Your task to perform on an android device: Go to eBay Image 0: 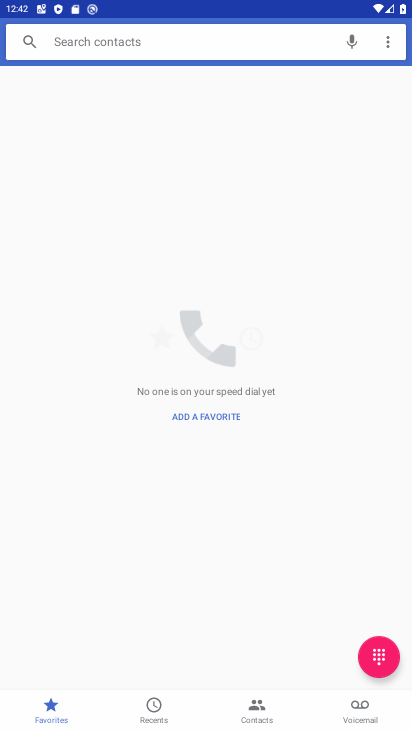
Step 0: drag from (272, 641) to (294, 309)
Your task to perform on an android device: Go to eBay Image 1: 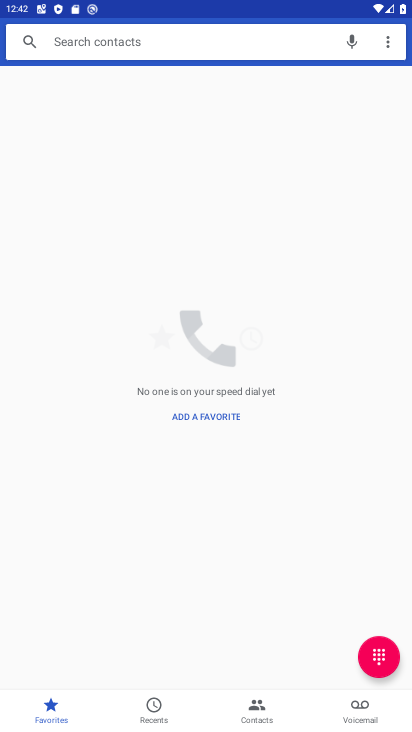
Step 1: press home button
Your task to perform on an android device: Go to eBay Image 2: 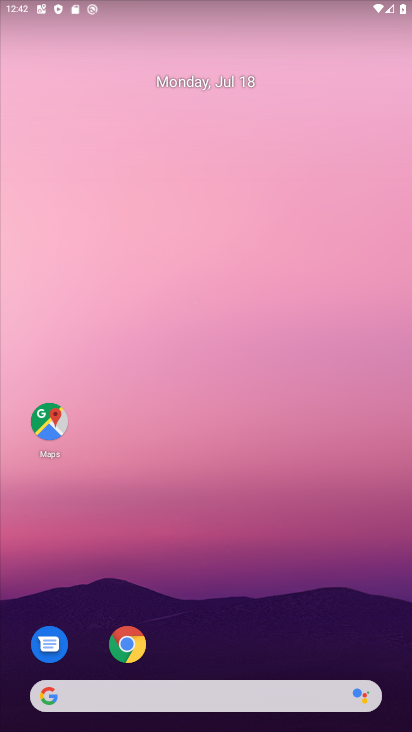
Step 2: drag from (221, 361) to (162, 65)
Your task to perform on an android device: Go to eBay Image 3: 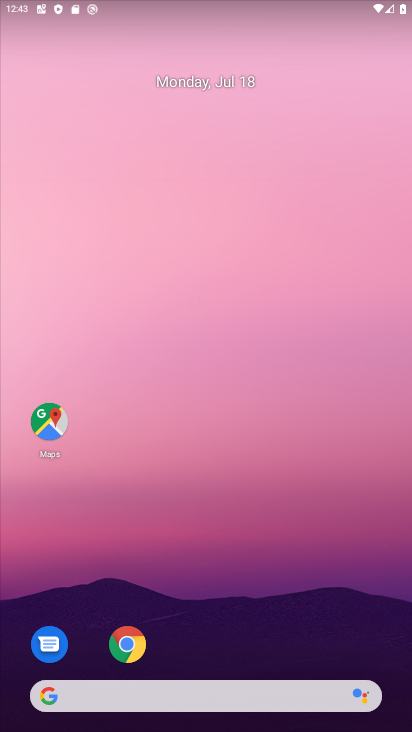
Step 3: click (117, 638)
Your task to perform on an android device: Go to eBay Image 4: 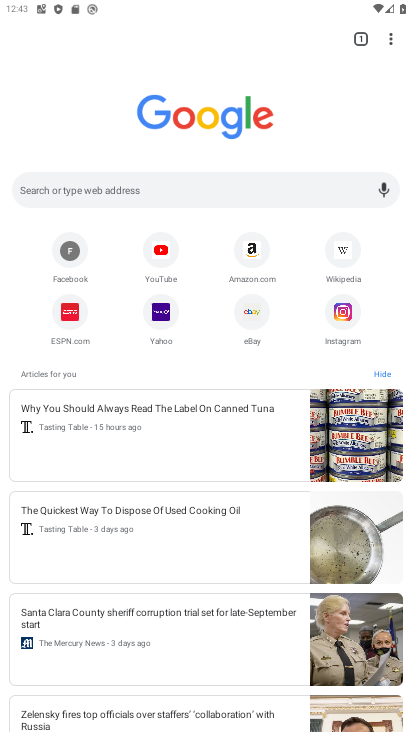
Step 4: click (247, 331)
Your task to perform on an android device: Go to eBay Image 5: 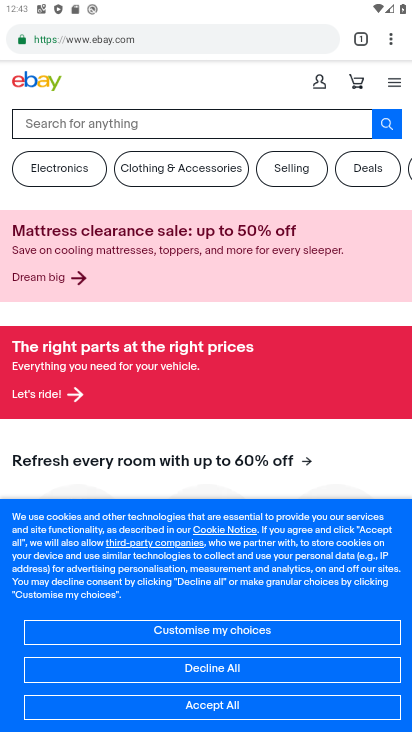
Step 5: task complete